Your task to perform on an android device: toggle improve location accuracy Image 0: 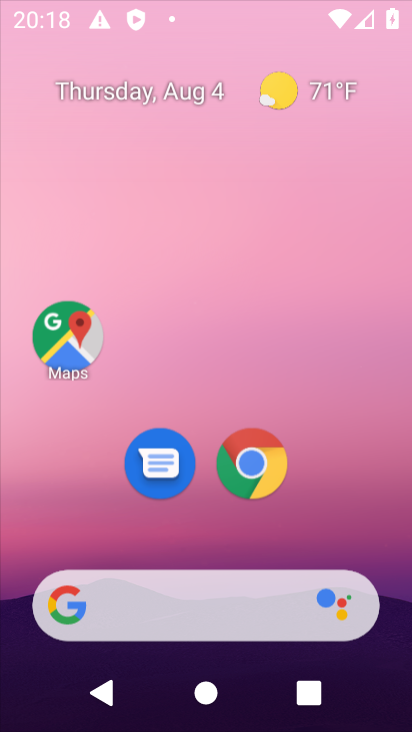
Step 0: press home button
Your task to perform on an android device: toggle improve location accuracy Image 1: 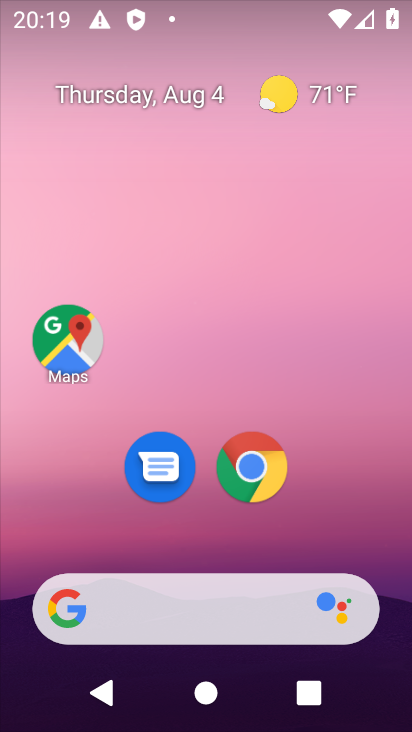
Step 1: drag from (204, 503) to (43, 73)
Your task to perform on an android device: toggle improve location accuracy Image 2: 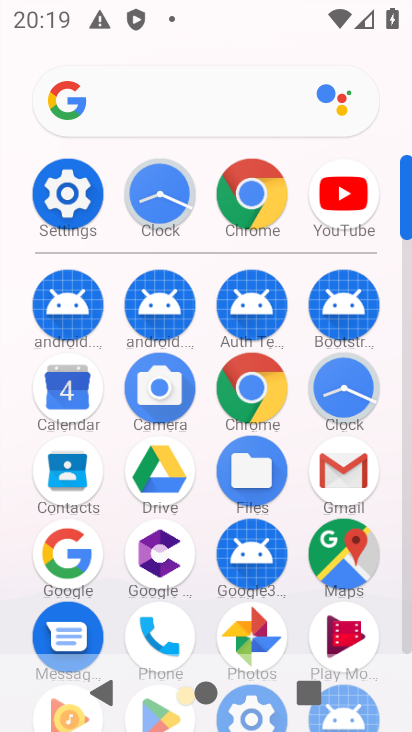
Step 2: click (64, 207)
Your task to perform on an android device: toggle improve location accuracy Image 3: 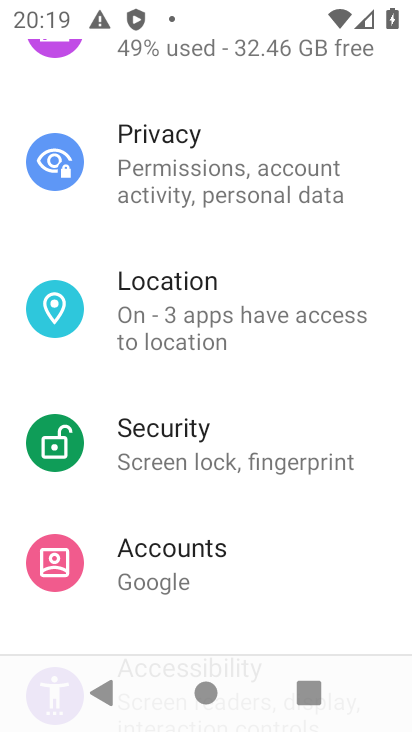
Step 3: drag from (234, 486) to (177, 418)
Your task to perform on an android device: toggle improve location accuracy Image 4: 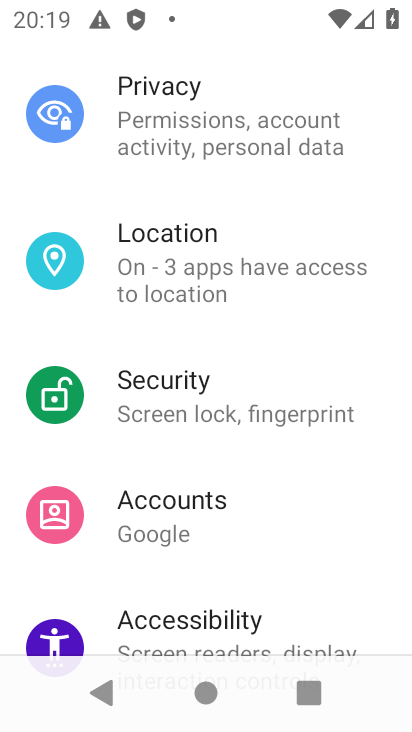
Step 4: click (159, 243)
Your task to perform on an android device: toggle improve location accuracy Image 5: 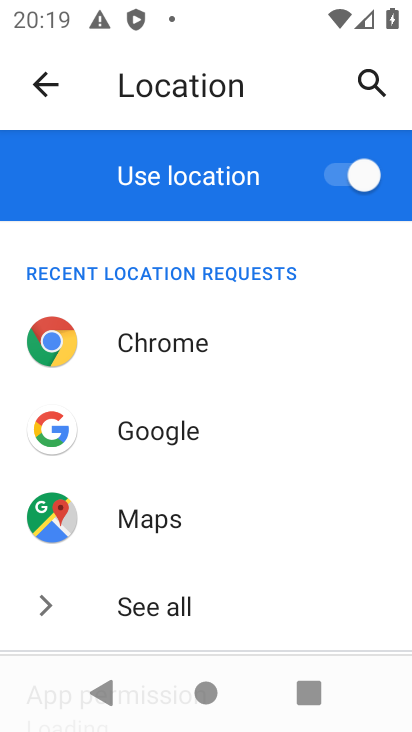
Step 5: drag from (370, 466) to (393, 9)
Your task to perform on an android device: toggle improve location accuracy Image 6: 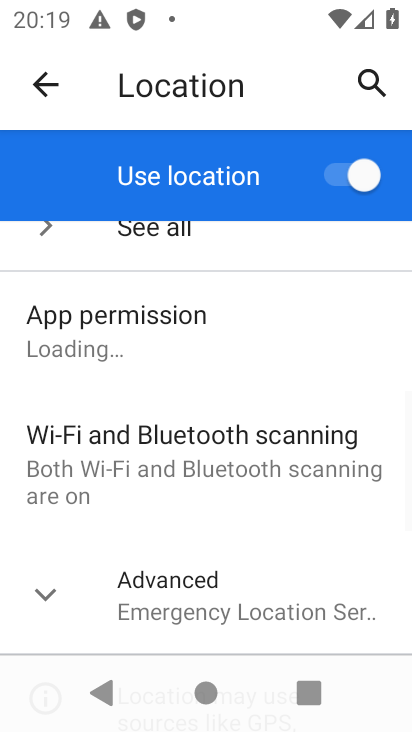
Step 6: drag from (254, 536) to (224, 159)
Your task to perform on an android device: toggle improve location accuracy Image 7: 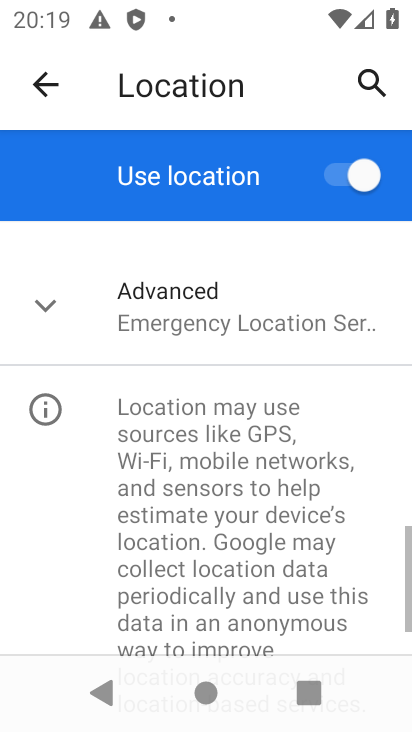
Step 7: click (67, 332)
Your task to perform on an android device: toggle improve location accuracy Image 8: 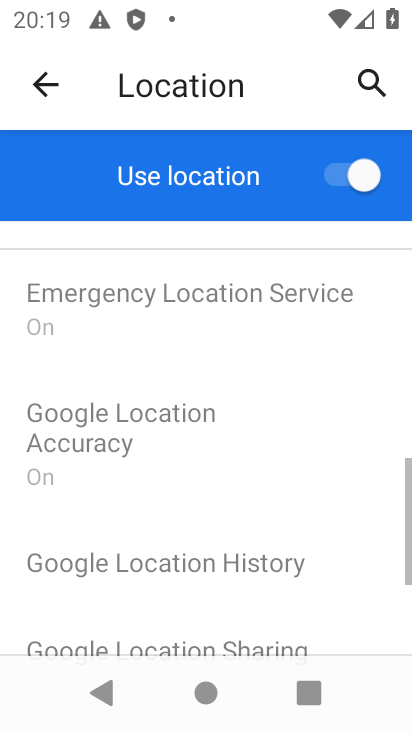
Step 8: drag from (217, 467) to (204, 383)
Your task to perform on an android device: toggle improve location accuracy Image 9: 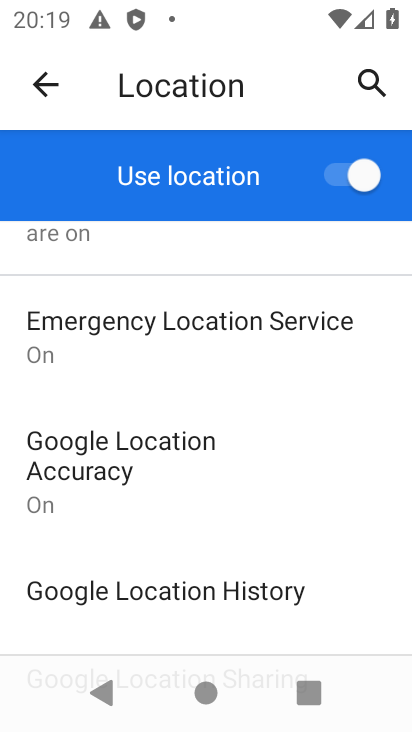
Step 9: click (125, 452)
Your task to perform on an android device: toggle improve location accuracy Image 10: 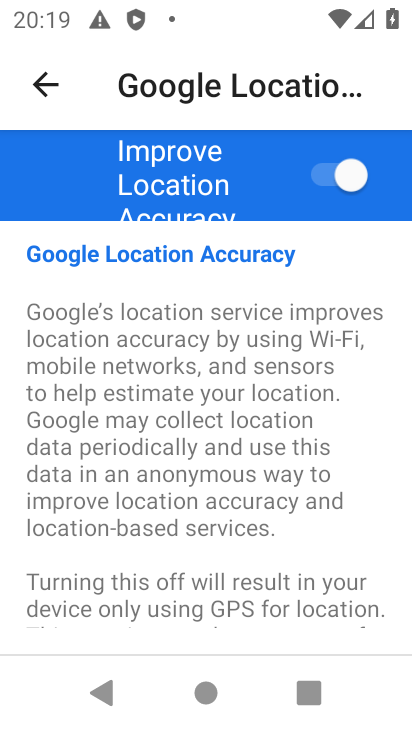
Step 10: click (303, 179)
Your task to perform on an android device: toggle improve location accuracy Image 11: 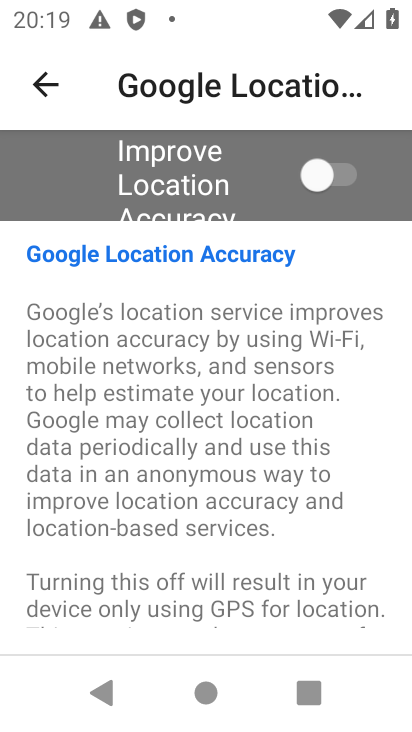
Step 11: task complete